Your task to perform on an android device: check out phone information Image 0: 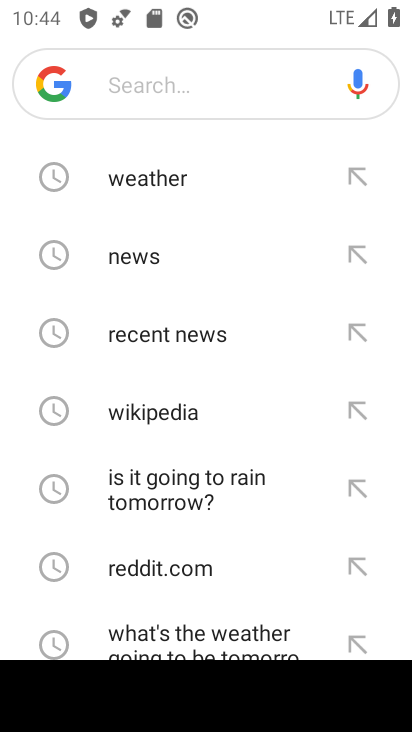
Step 0: press home button
Your task to perform on an android device: check out phone information Image 1: 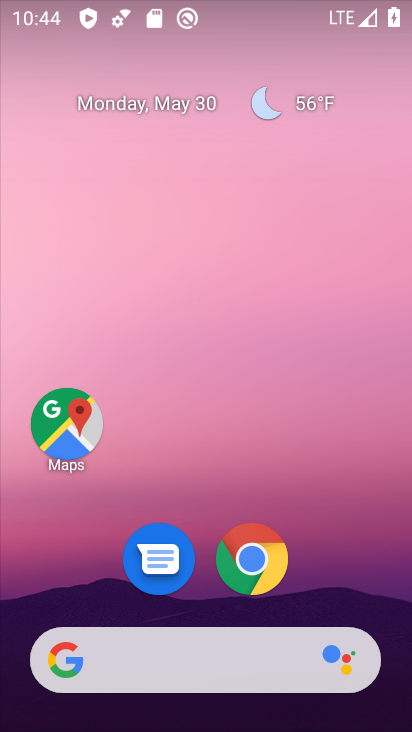
Step 1: drag from (340, 559) to (237, 232)
Your task to perform on an android device: check out phone information Image 2: 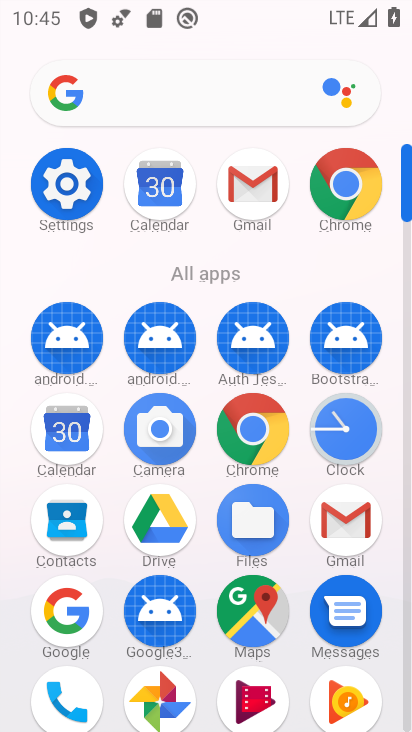
Step 2: click (74, 190)
Your task to perform on an android device: check out phone information Image 3: 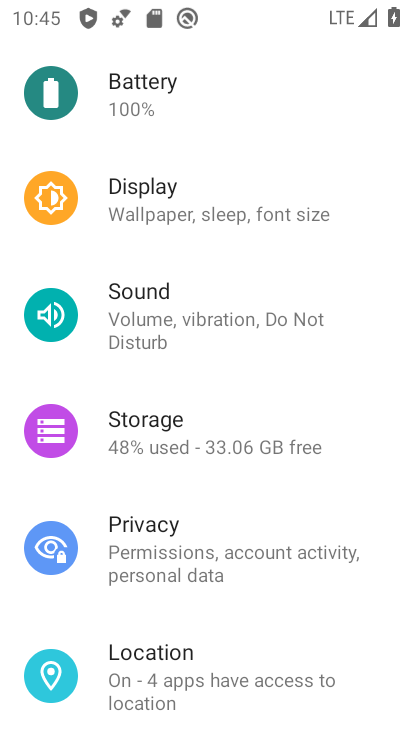
Step 3: drag from (230, 661) to (282, 18)
Your task to perform on an android device: check out phone information Image 4: 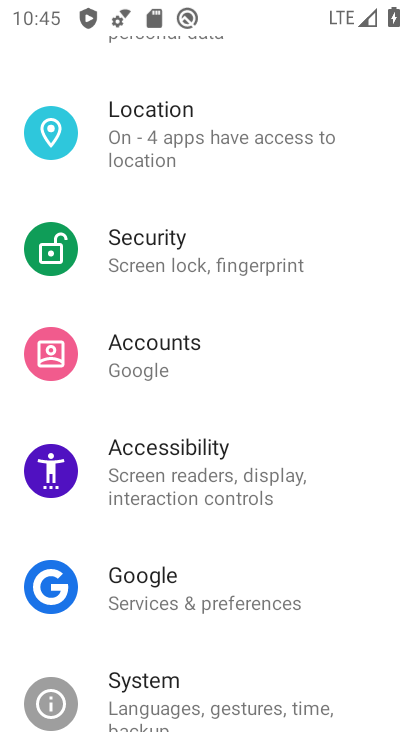
Step 4: drag from (237, 597) to (262, 165)
Your task to perform on an android device: check out phone information Image 5: 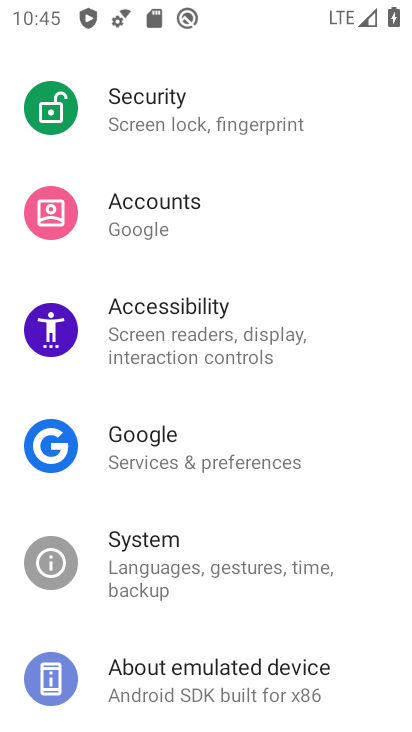
Step 5: click (264, 671)
Your task to perform on an android device: check out phone information Image 6: 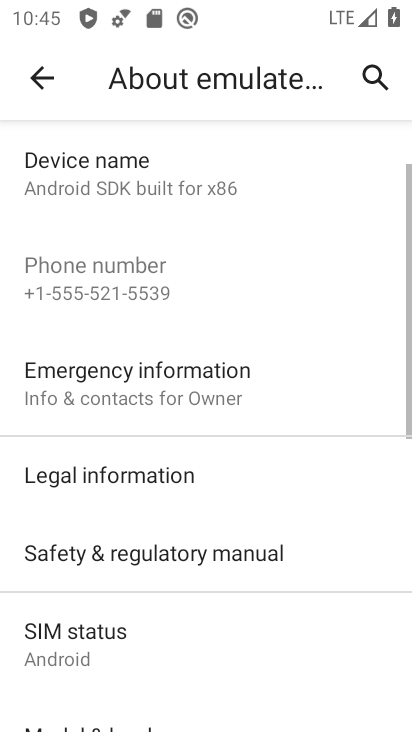
Step 6: task complete